Your task to perform on an android device: toggle location history Image 0: 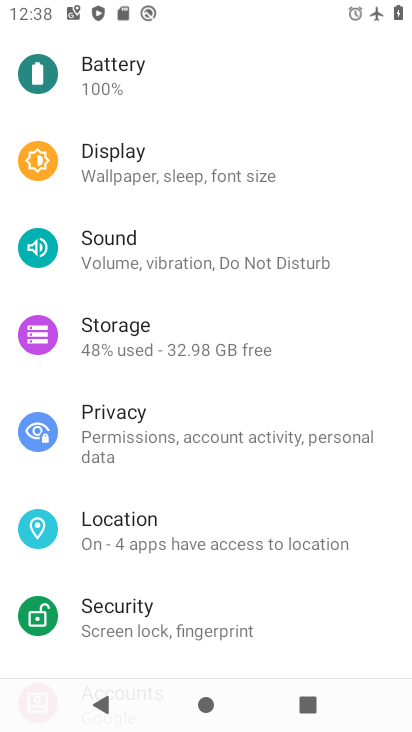
Step 0: press home button
Your task to perform on an android device: toggle location history Image 1: 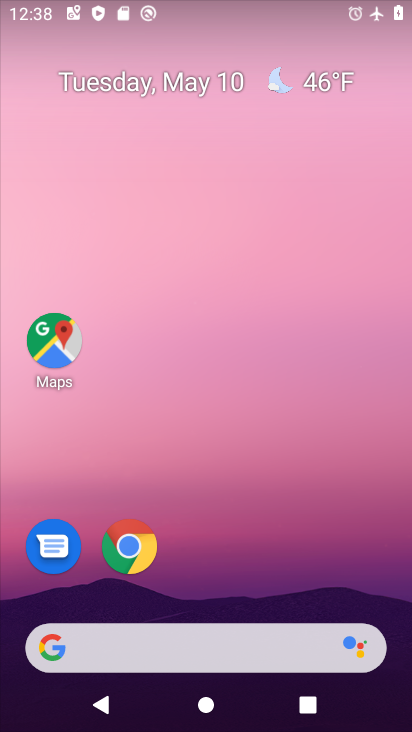
Step 1: click (48, 351)
Your task to perform on an android device: toggle location history Image 2: 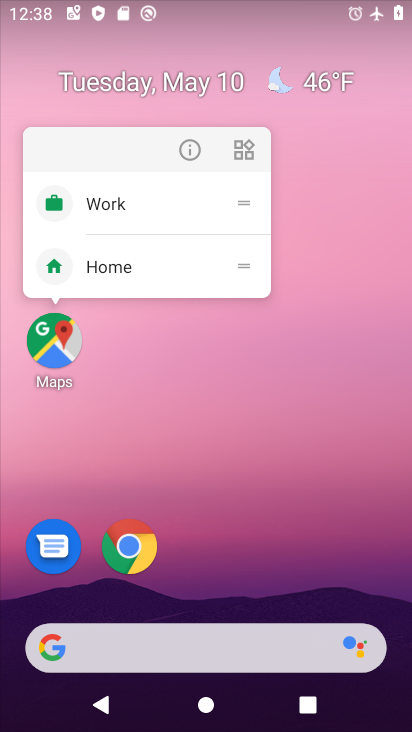
Step 2: click (174, 344)
Your task to perform on an android device: toggle location history Image 3: 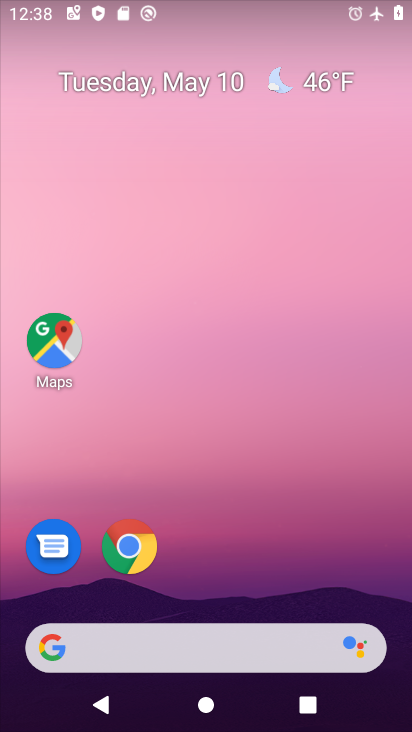
Step 3: click (53, 343)
Your task to perform on an android device: toggle location history Image 4: 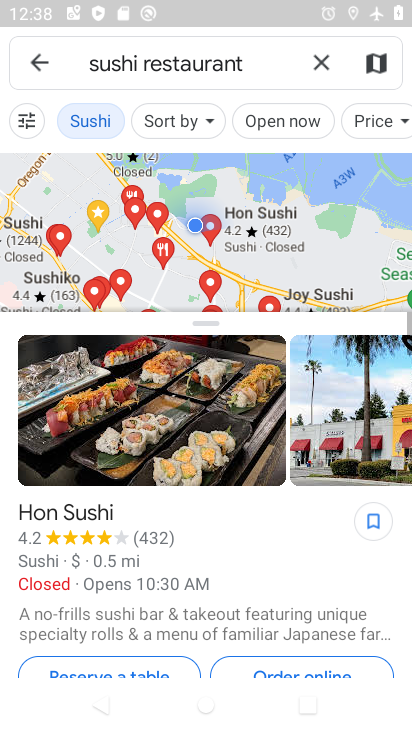
Step 4: click (321, 62)
Your task to perform on an android device: toggle location history Image 5: 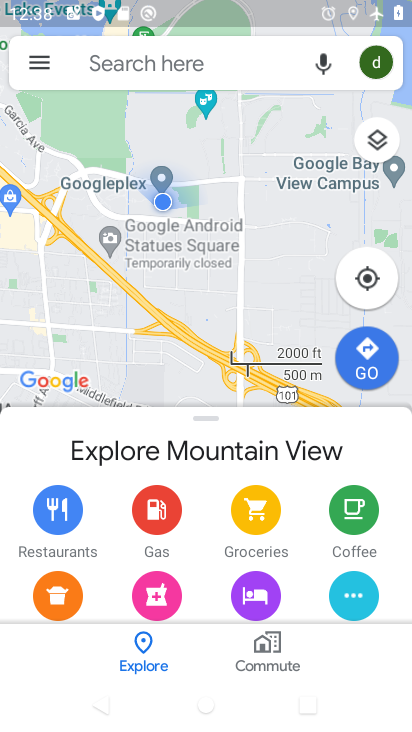
Step 5: click (48, 63)
Your task to perform on an android device: toggle location history Image 6: 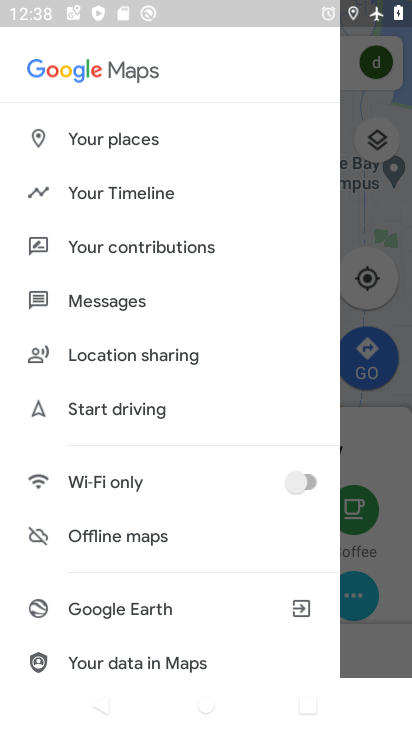
Step 6: click (105, 193)
Your task to perform on an android device: toggle location history Image 7: 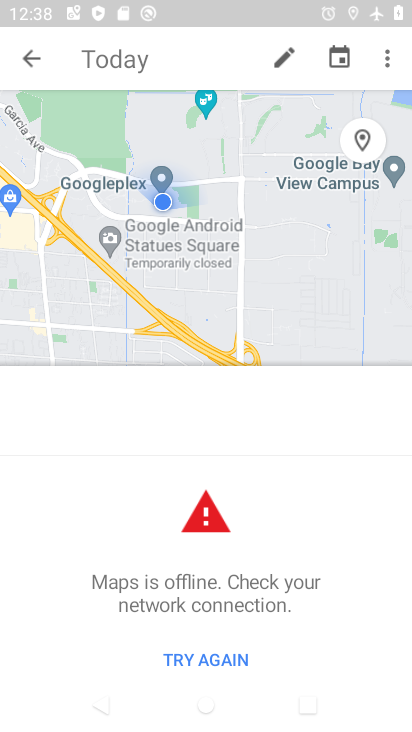
Step 7: task complete